Your task to perform on an android device: find photos in the google photos app Image 0: 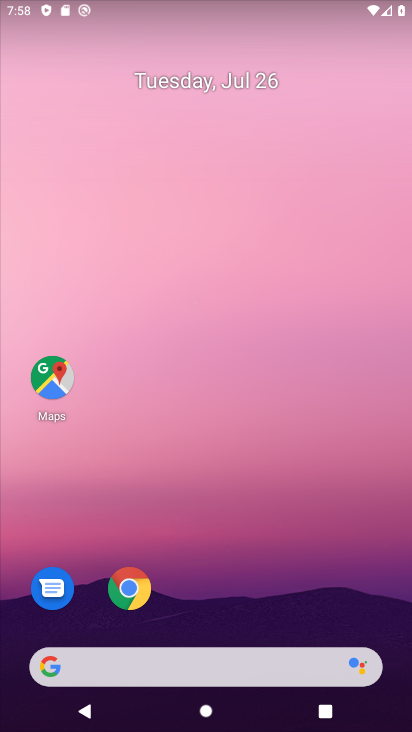
Step 0: drag from (235, 622) to (173, 72)
Your task to perform on an android device: find photos in the google photos app Image 1: 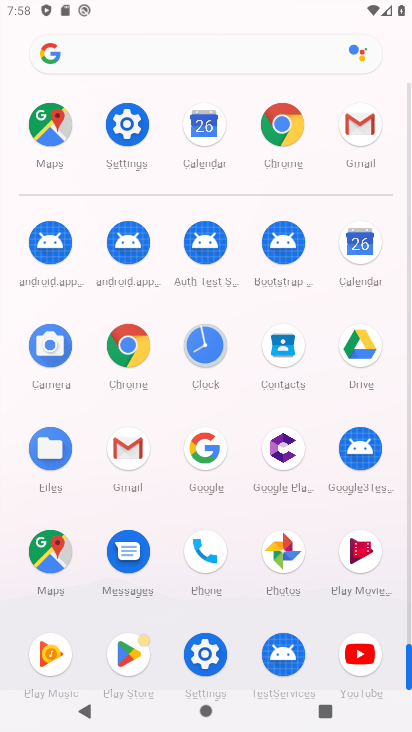
Step 1: click (287, 560)
Your task to perform on an android device: find photos in the google photos app Image 2: 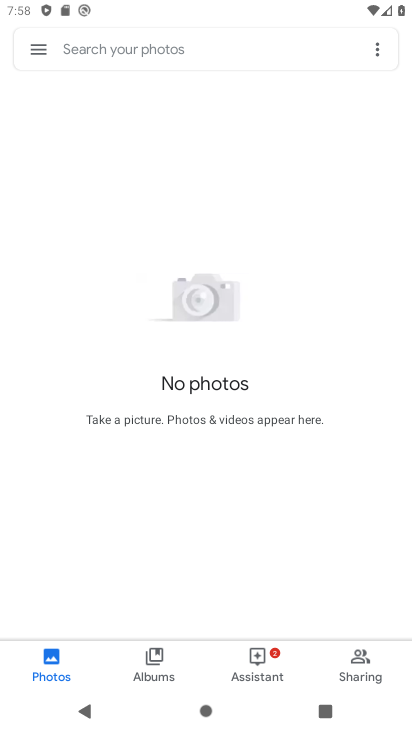
Step 2: task complete